Your task to perform on an android device: toggle translation in the chrome app Image 0: 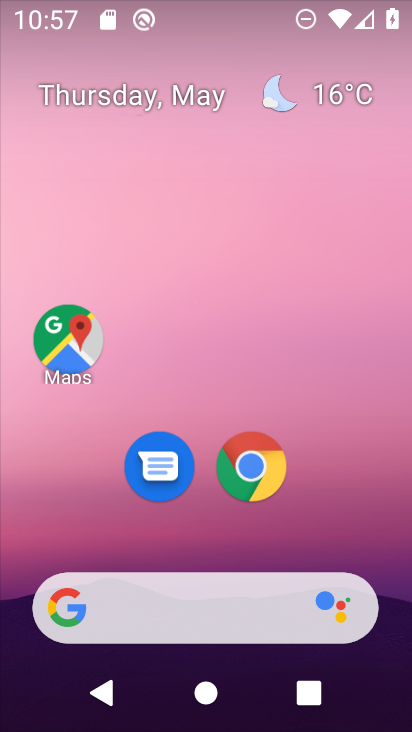
Step 0: click (236, 470)
Your task to perform on an android device: toggle translation in the chrome app Image 1: 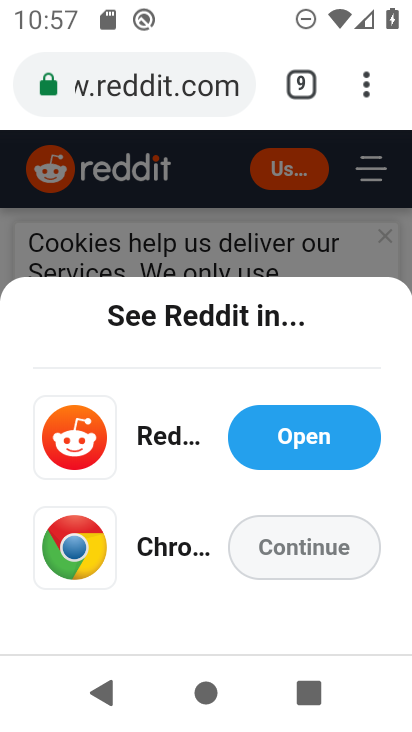
Step 1: click (368, 79)
Your task to perform on an android device: toggle translation in the chrome app Image 2: 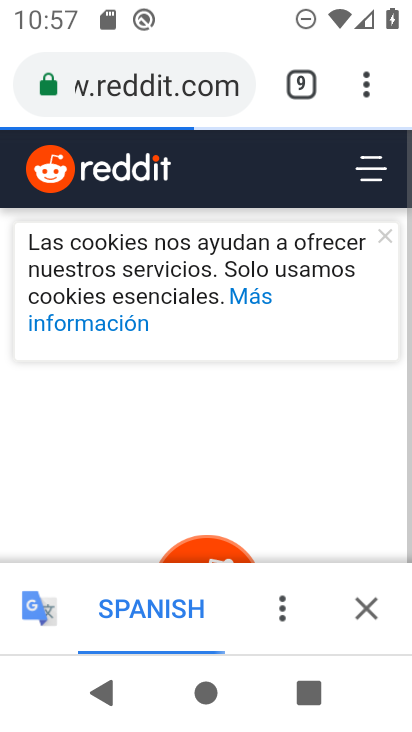
Step 2: click (370, 78)
Your task to perform on an android device: toggle translation in the chrome app Image 3: 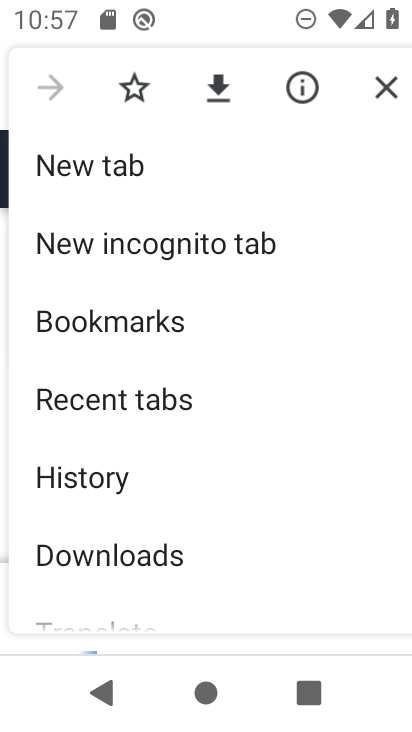
Step 3: click (181, 540)
Your task to perform on an android device: toggle translation in the chrome app Image 4: 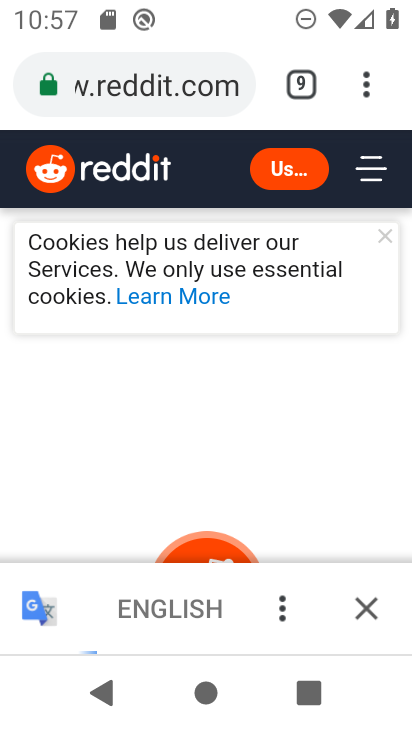
Step 4: drag from (183, 521) to (206, 331)
Your task to perform on an android device: toggle translation in the chrome app Image 5: 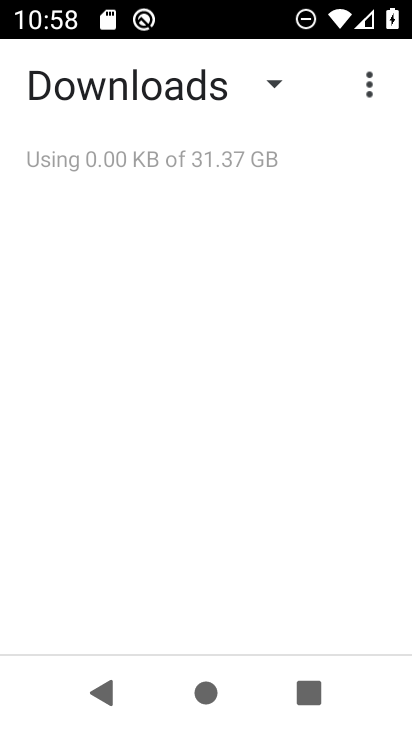
Step 5: click (373, 73)
Your task to perform on an android device: toggle translation in the chrome app Image 6: 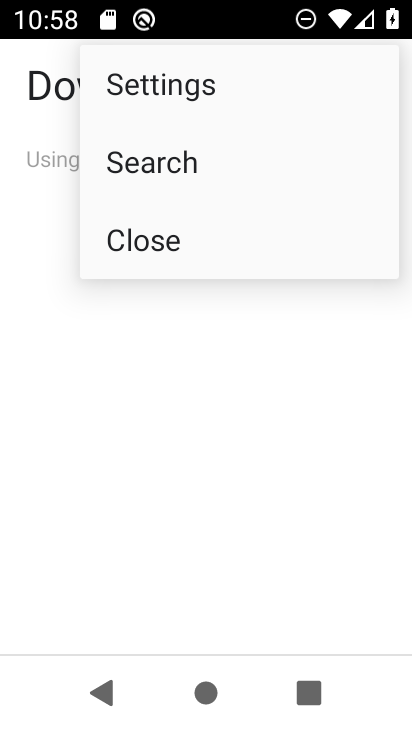
Step 6: click (204, 83)
Your task to perform on an android device: toggle translation in the chrome app Image 7: 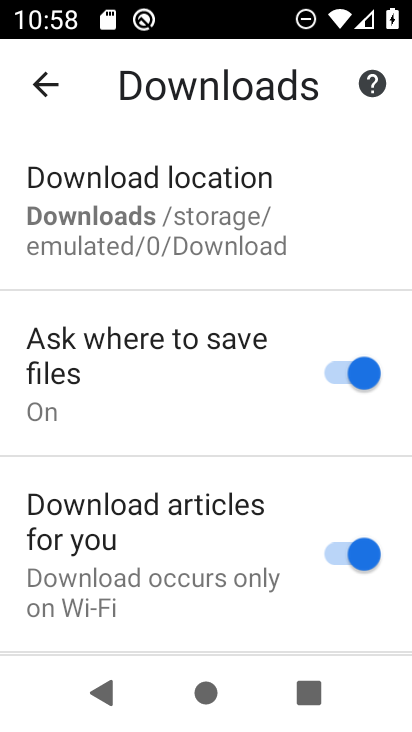
Step 7: drag from (173, 623) to (226, 162)
Your task to perform on an android device: toggle translation in the chrome app Image 8: 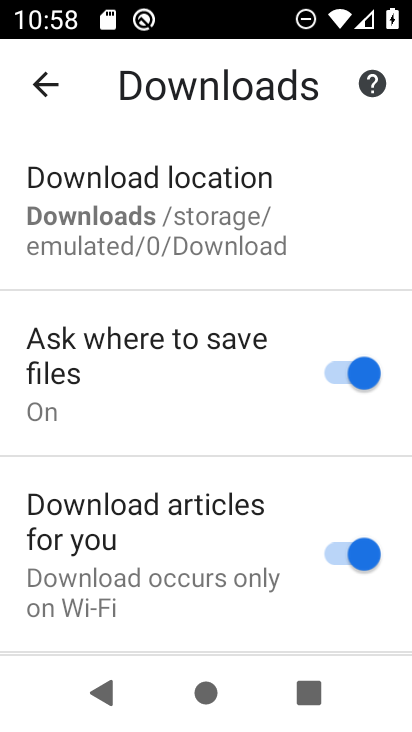
Step 8: click (41, 72)
Your task to perform on an android device: toggle translation in the chrome app Image 9: 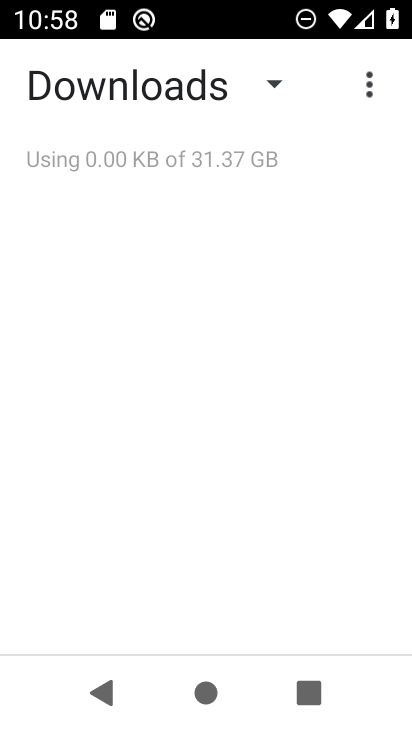
Step 9: press back button
Your task to perform on an android device: toggle translation in the chrome app Image 10: 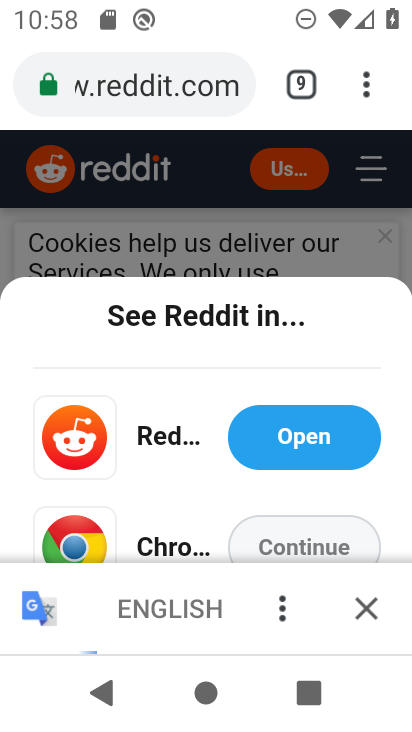
Step 10: click (370, 67)
Your task to perform on an android device: toggle translation in the chrome app Image 11: 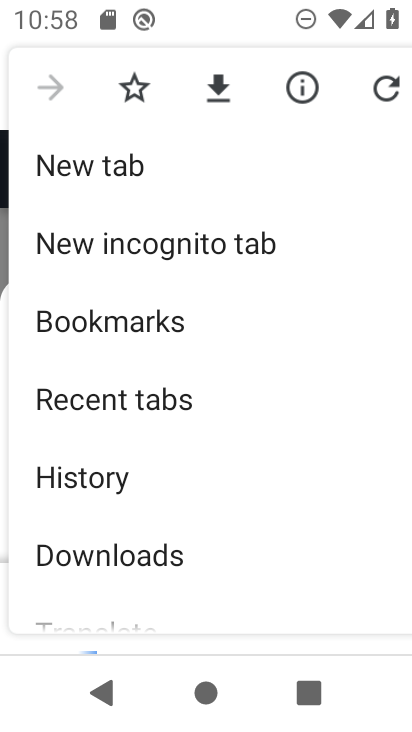
Step 11: drag from (257, 521) to (276, 188)
Your task to perform on an android device: toggle translation in the chrome app Image 12: 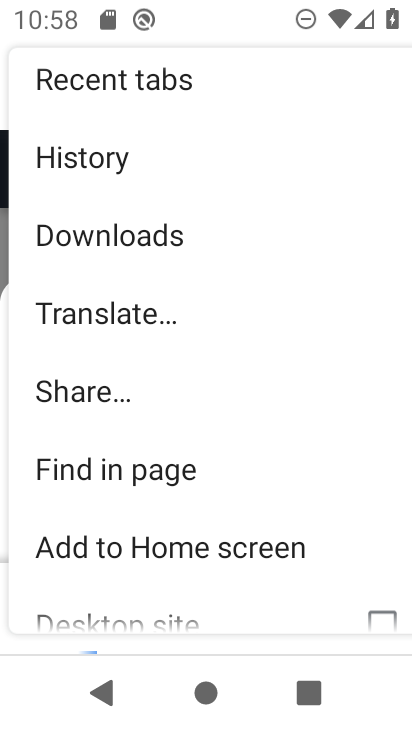
Step 12: drag from (227, 546) to (267, 292)
Your task to perform on an android device: toggle translation in the chrome app Image 13: 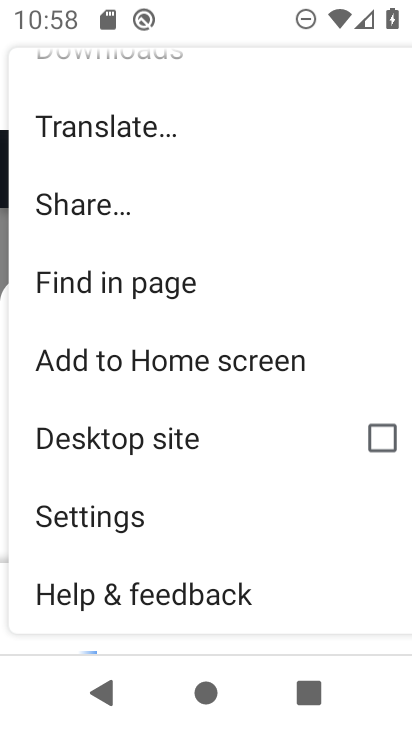
Step 13: click (158, 505)
Your task to perform on an android device: toggle translation in the chrome app Image 14: 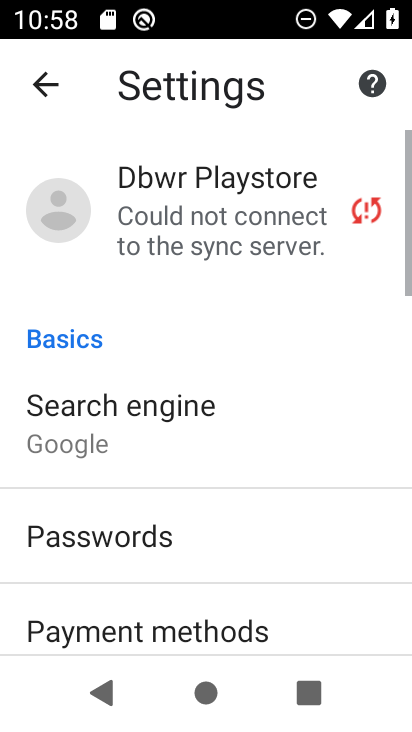
Step 14: drag from (237, 536) to (251, 174)
Your task to perform on an android device: toggle translation in the chrome app Image 15: 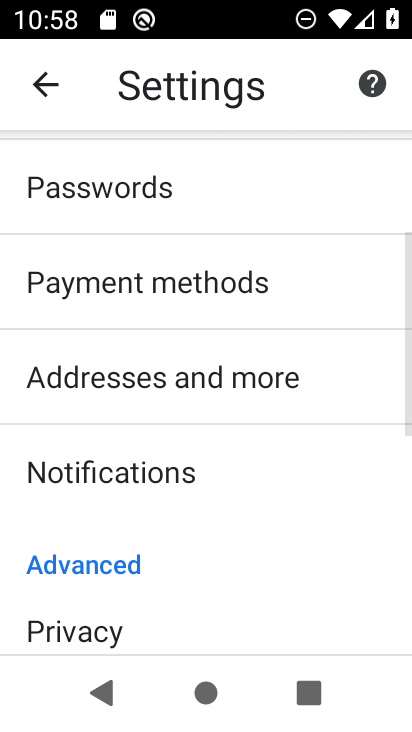
Step 15: click (214, 537)
Your task to perform on an android device: toggle translation in the chrome app Image 16: 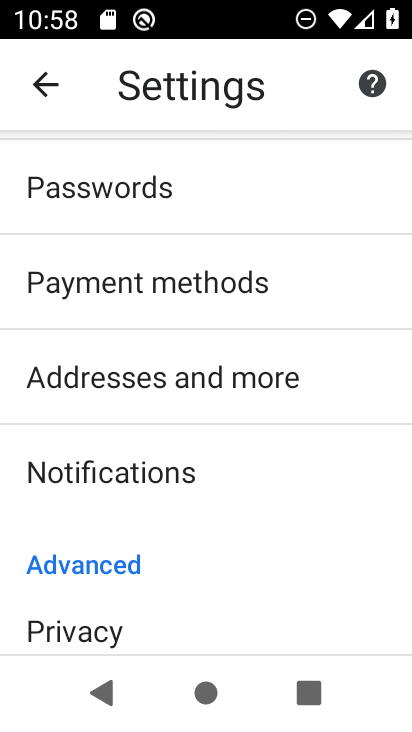
Step 16: drag from (213, 531) to (204, 314)
Your task to perform on an android device: toggle translation in the chrome app Image 17: 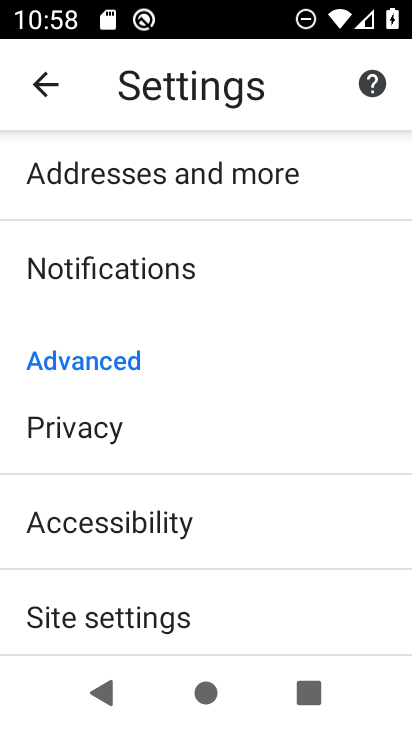
Step 17: drag from (190, 600) to (216, 305)
Your task to perform on an android device: toggle translation in the chrome app Image 18: 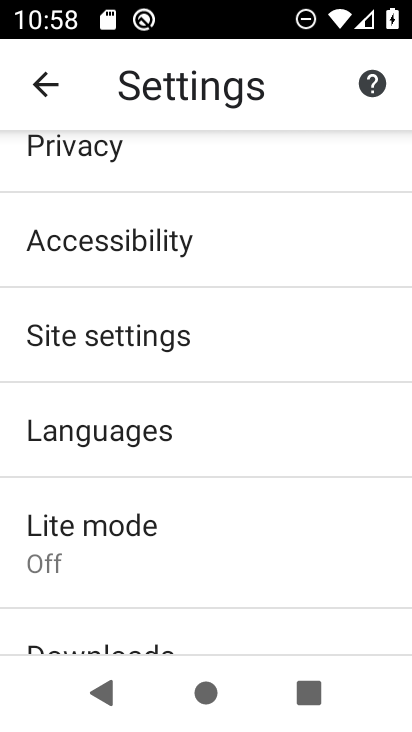
Step 18: click (222, 432)
Your task to perform on an android device: toggle translation in the chrome app Image 19: 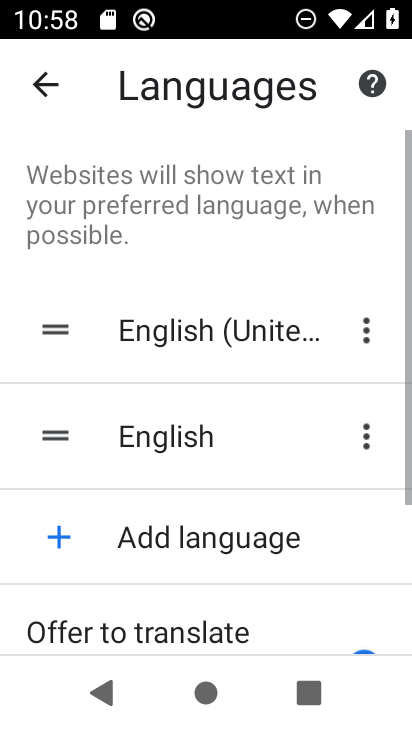
Step 19: drag from (335, 601) to (324, 367)
Your task to perform on an android device: toggle translation in the chrome app Image 20: 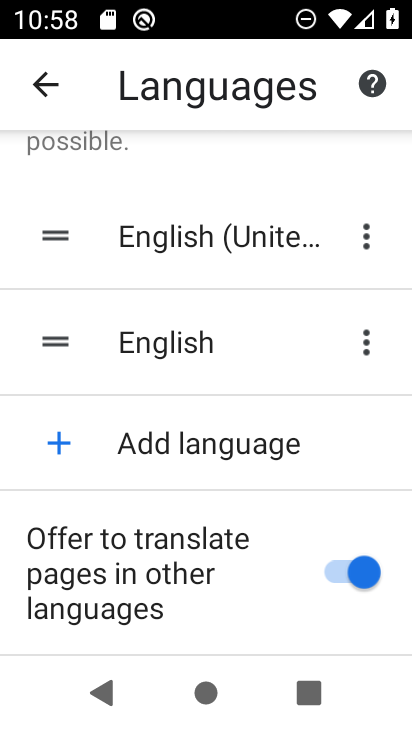
Step 20: click (339, 563)
Your task to perform on an android device: toggle translation in the chrome app Image 21: 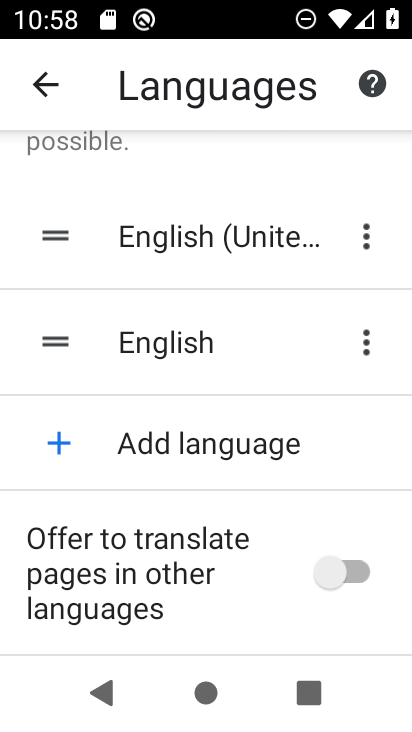
Step 21: task complete